Your task to perform on an android device: visit the assistant section in the google photos Image 0: 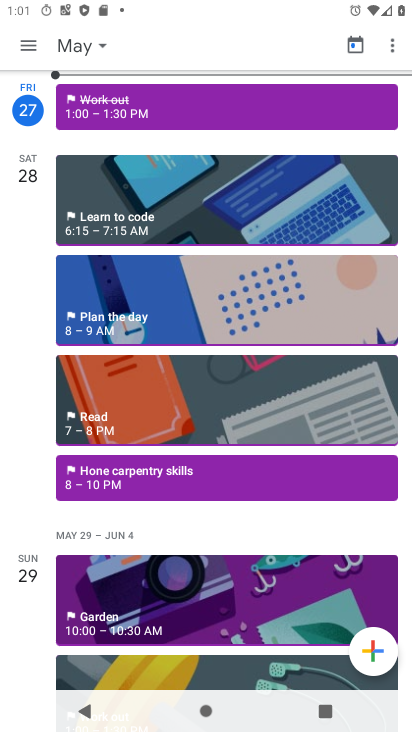
Step 0: press home button
Your task to perform on an android device: visit the assistant section in the google photos Image 1: 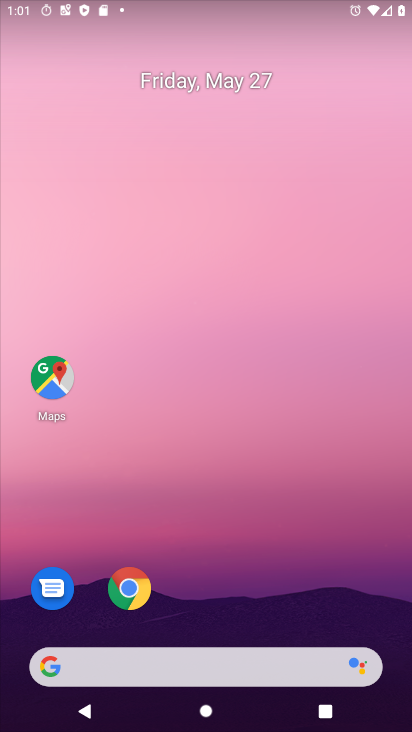
Step 1: drag from (230, 626) to (229, 21)
Your task to perform on an android device: visit the assistant section in the google photos Image 2: 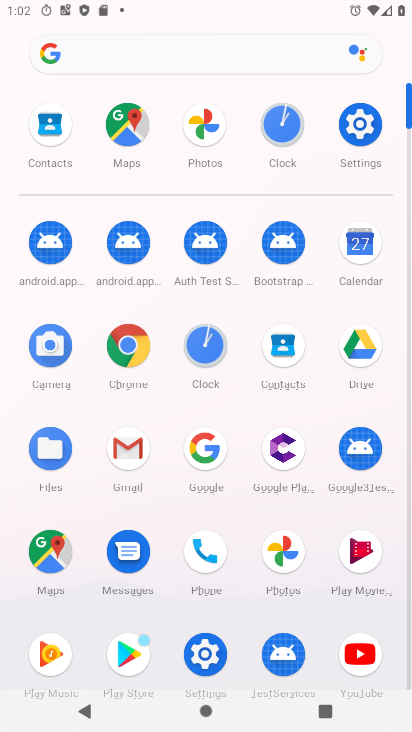
Step 2: click (282, 544)
Your task to perform on an android device: visit the assistant section in the google photos Image 3: 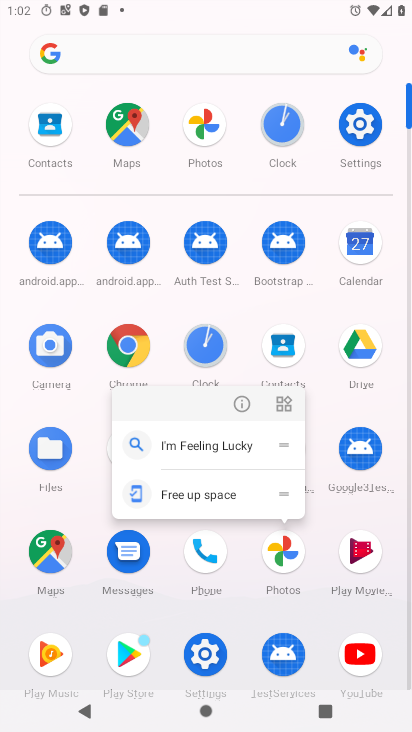
Step 3: click (283, 544)
Your task to perform on an android device: visit the assistant section in the google photos Image 4: 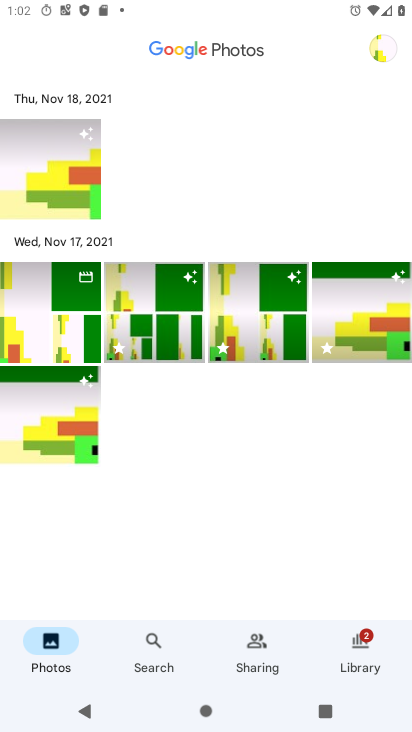
Step 4: click (151, 648)
Your task to perform on an android device: visit the assistant section in the google photos Image 5: 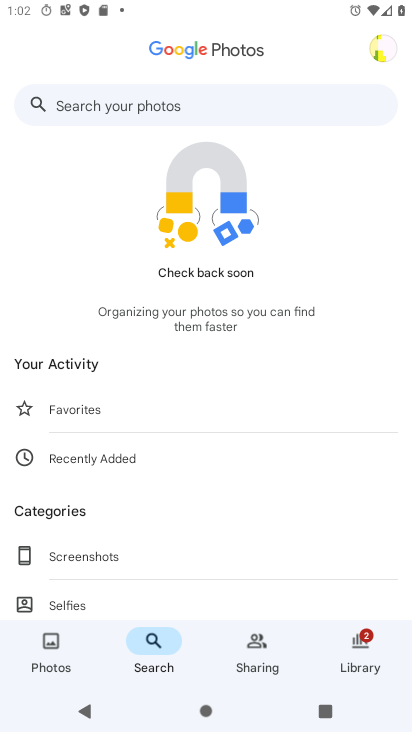
Step 5: click (140, 102)
Your task to perform on an android device: visit the assistant section in the google photos Image 6: 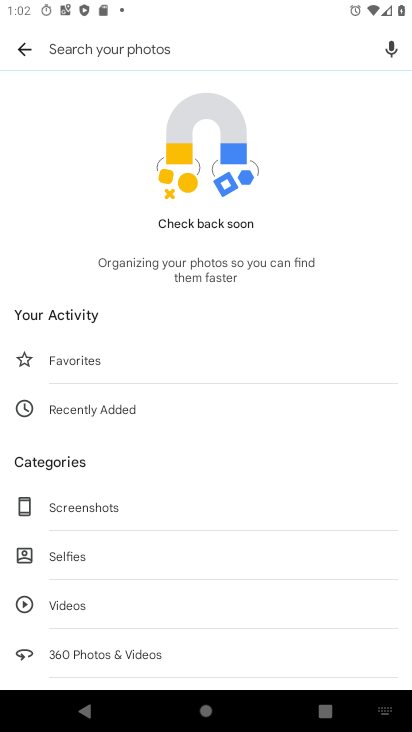
Step 6: type "assistant"
Your task to perform on an android device: visit the assistant section in the google photos Image 7: 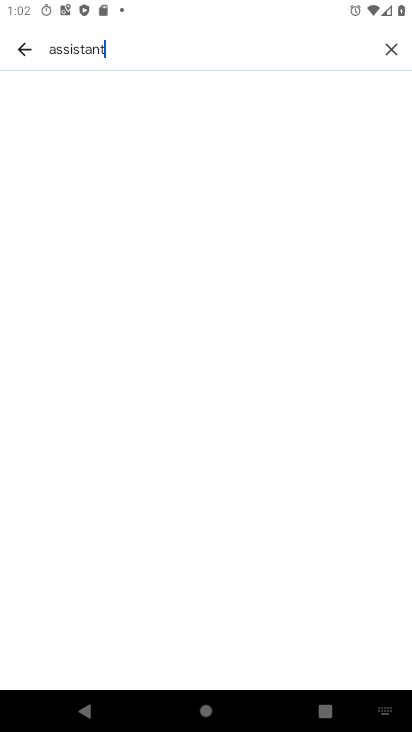
Step 7: task complete